Your task to perform on an android device: add a label to a message in the gmail app Image 0: 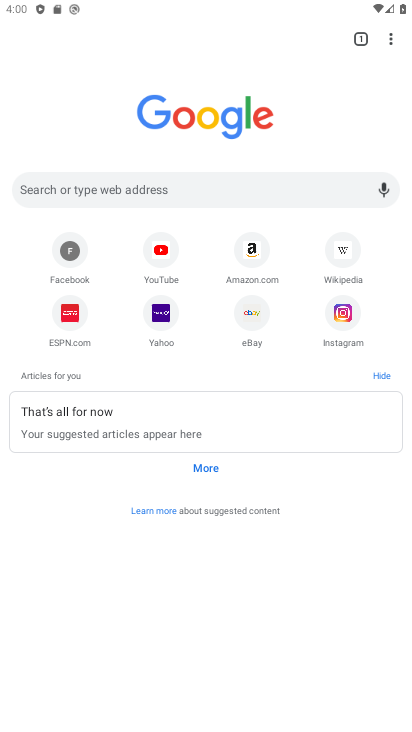
Step 0: press home button
Your task to perform on an android device: add a label to a message in the gmail app Image 1: 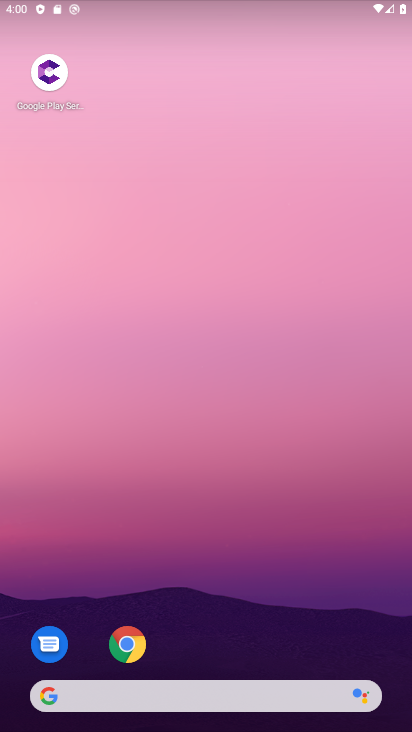
Step 1: drag from (250, 632) to (250, 118)
Your task to perform on an android device: add a label to a message in the gmail app Image 2: 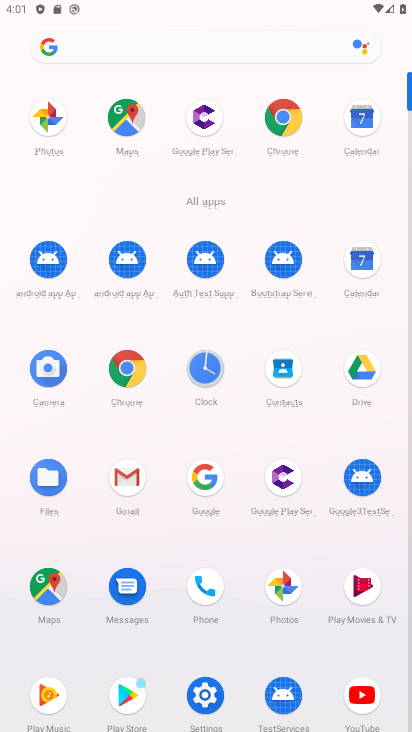
Step 2: click (139, 476)
Your task to perform on an android device: add a label to a message in the gmail app Image 3: 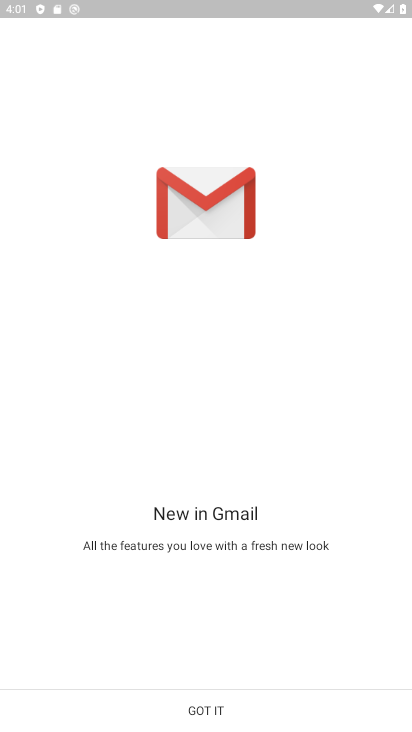
Step 3: click (215, 698)
Your task to perform on an android device: add a label to a message in the gmail app Image 4: 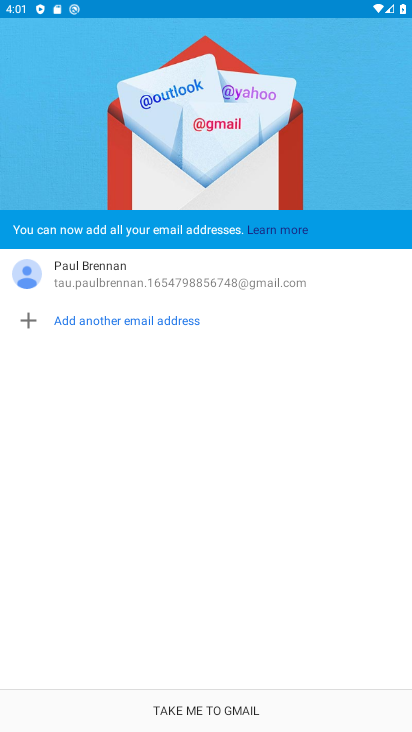
Step 4: click (214, 698)
Your task to perform on an android device: add a label to a message in the gmail app Image 5: 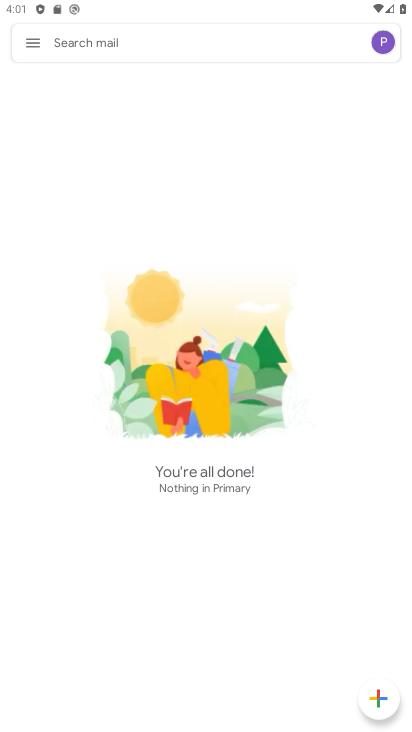
Step 5: task complete